Your task to perform on an android device: Go to CNN.com Image 0: 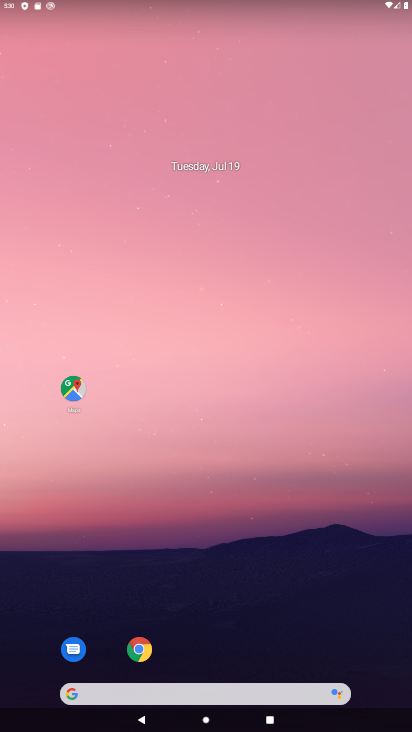
Step 0: drag from (244, 582) to (239, 166)
Your task to perform on an android device: Go to CNN.com Image 1: 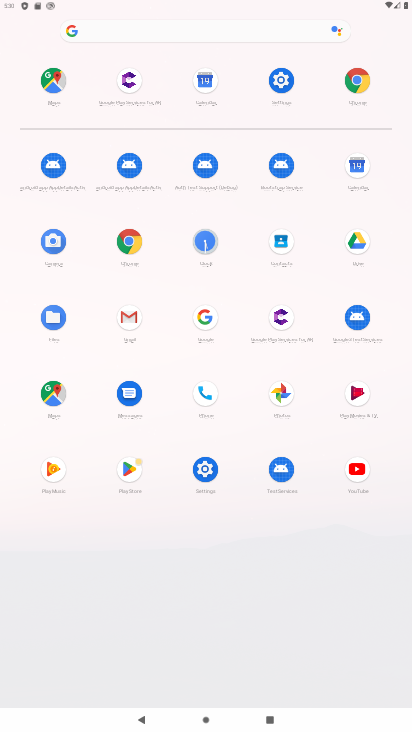
Step 1: click (355, 72)
Your task to perform on an android device: Go to CNN.com Image 2: 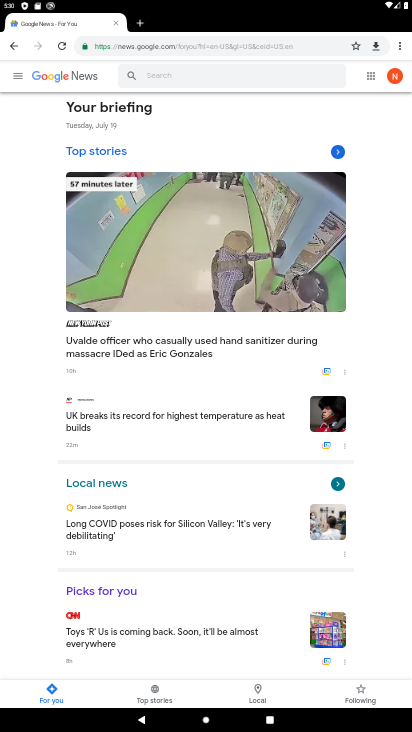
Step 2: click (157, 49)
Your task to perform on an android device: Go to CNN.com Image 3: 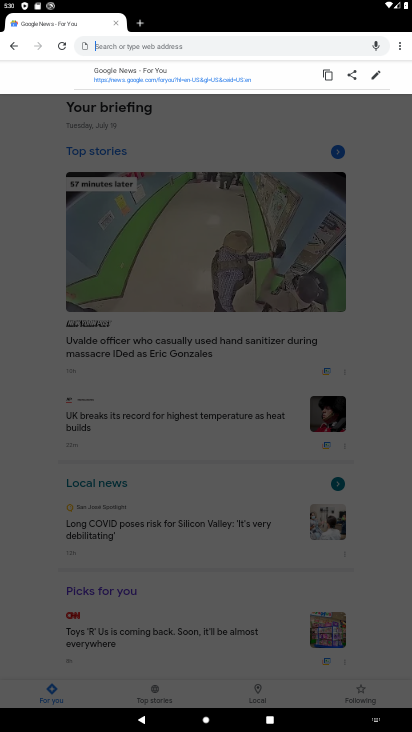
Step 3: type "cnn.com"
Your task to perform on an android device: Go to CNN.com Image 4: 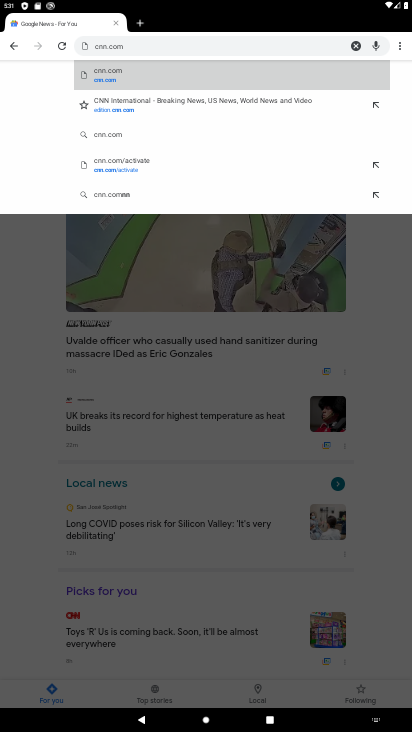
Step 4: click (131, 78)
Your task to perform on an android device: Go to CNN.com Image 5: 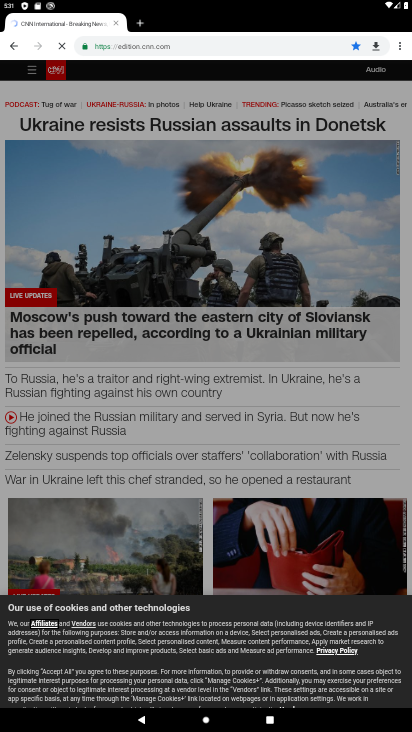
Step 5: task complete